Your task to perform on an android device: turn off notifications settings in the gmail app Image 0: 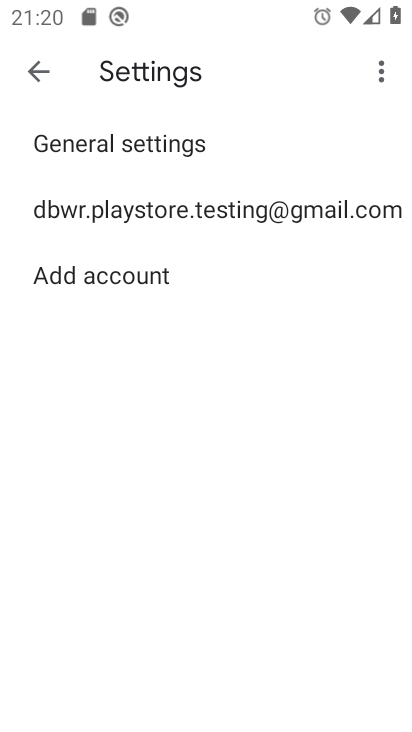
Step 0: press home button
Your task to perform on an android device: turn off notifications settings in the gmail app Image 1: 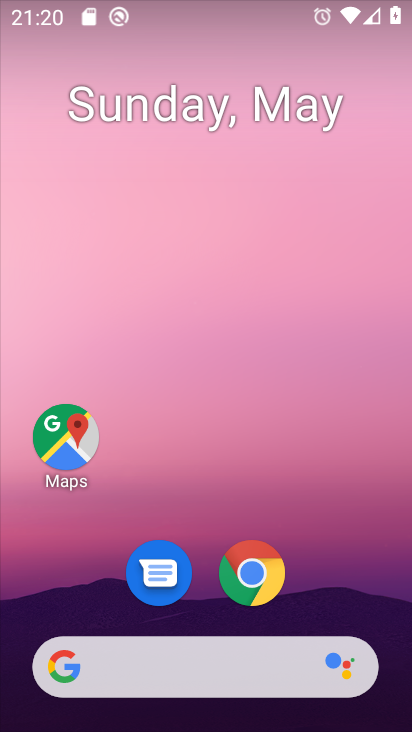
Step 1: drag from (192, 498) to (230, 45)
Your task to perform on an android device: turn off notifications settings in the gmail app Image 2: 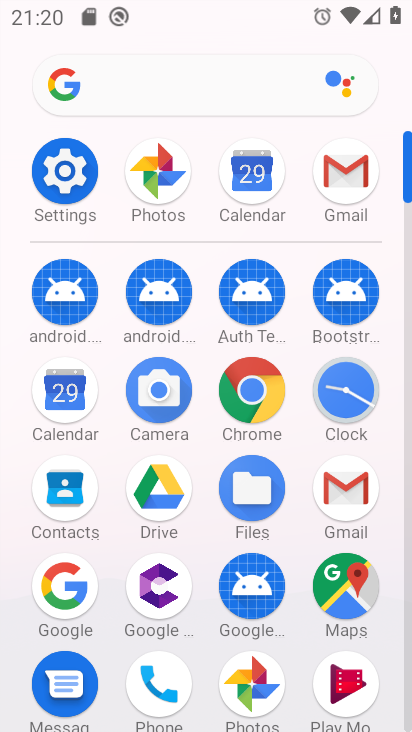
Step 2: click (349, 177)
Your task to perform on an android device: turn off notifications settings in the gmail app Image 3: 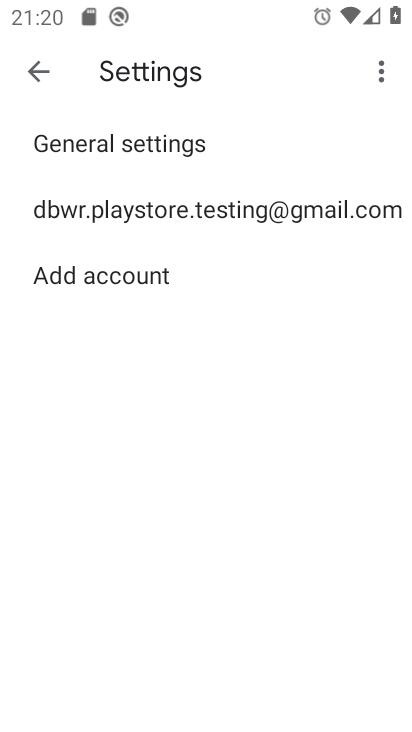
Step 3: click (151, 205)
Your task to perform on an android device: turn off notifications settings in the gmail app Image 4: 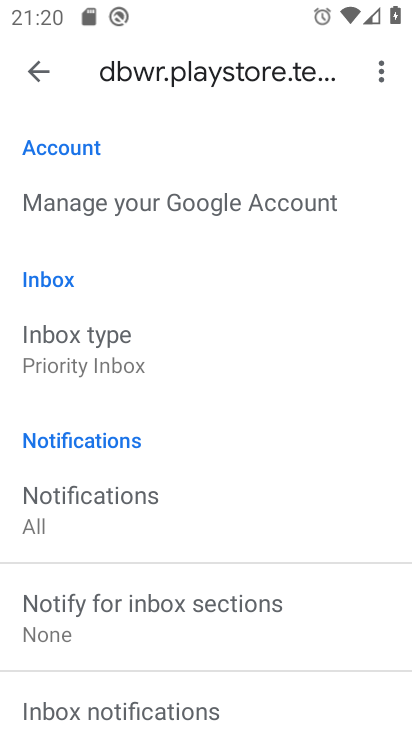
Step 4: drag from (196, 588) to (198, 204)
Your task to perform on an android device: turn off notifications settings in the gmail app Image 5: 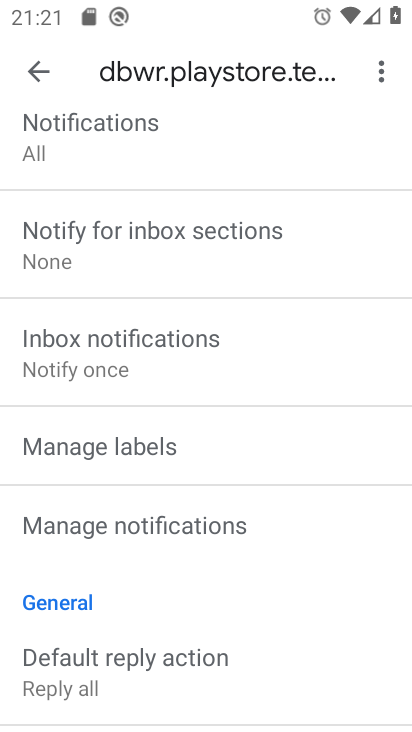
Step 5: click (230, 532)
Your task to perform on an android device: turn off notifications settings in the gmail app Image 6: 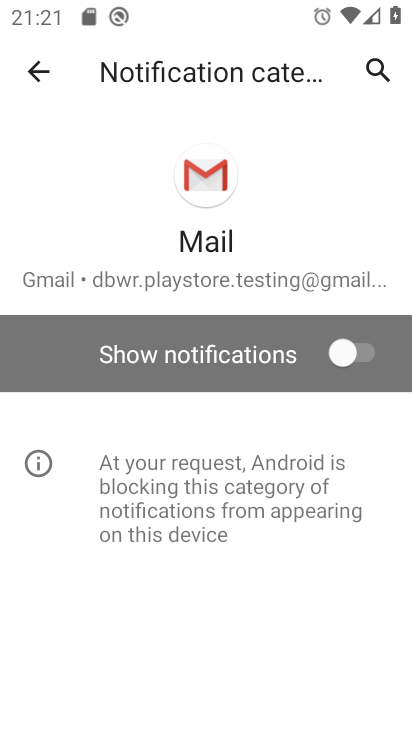
Step 6: task complete